Your task to perform on an android device: Play the last video I watched on Youtube Image 0: 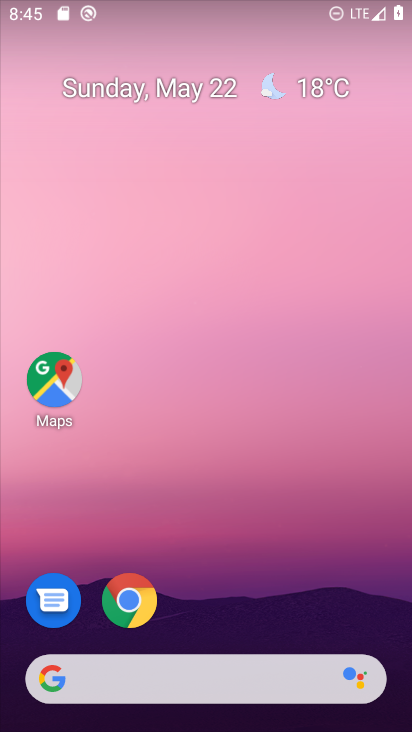
Step 0: drag from (347, 624) to (333, 1)
Your task to perform on an android device: Play the last video I watched on Youtube Image 1: 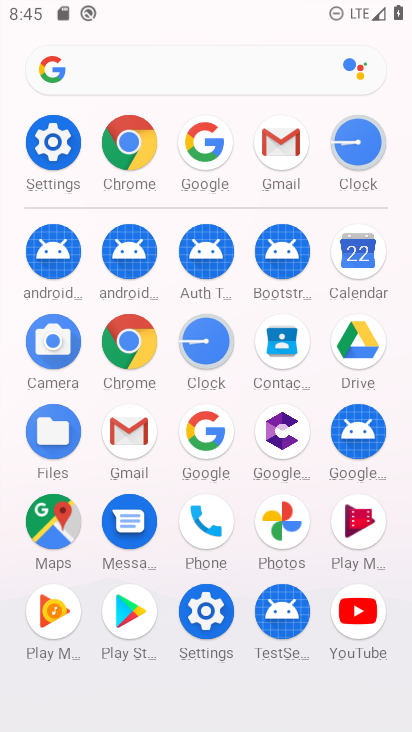
Step 1: click (353, 638)
Your task to perform on an android device: Play the last video I watched on Youtube Image 2: 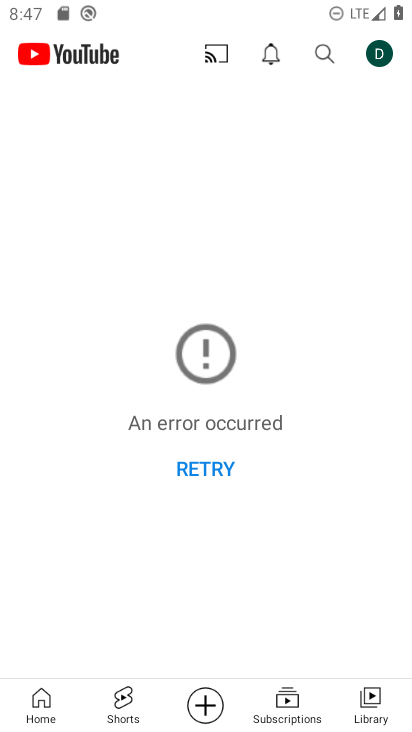
Step 2: task complete